Your task to perform on an android device: clear all cookies in the chrome app Image 0: 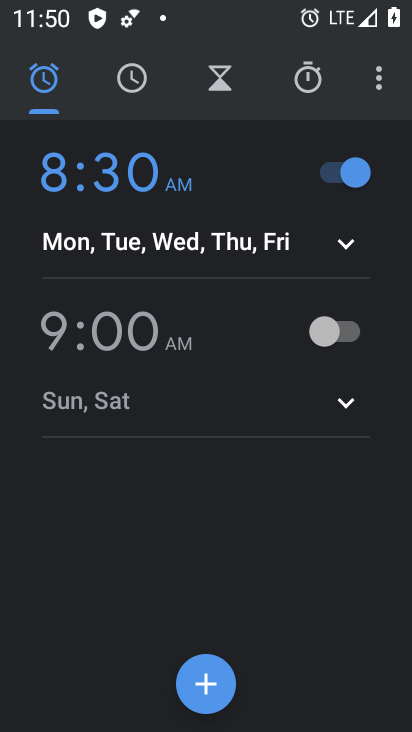
Step 0: press back button
Your task to perform on an android device: clear all cookies in the chrome app Image 1: 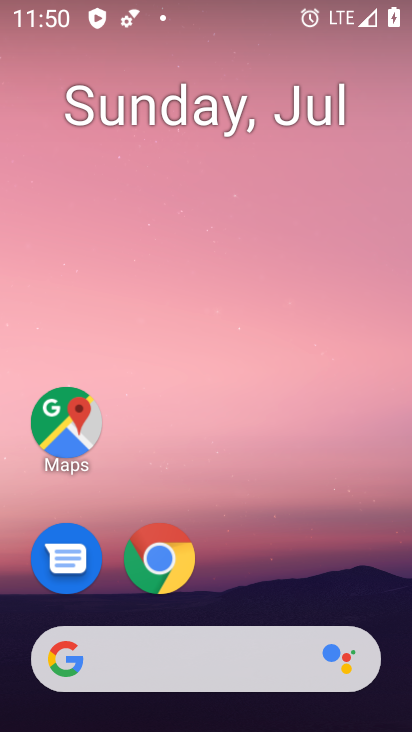
Step 1: click (173, 566)
Your task to perform on an android device: clear all cookies in the chrome app Image 2: 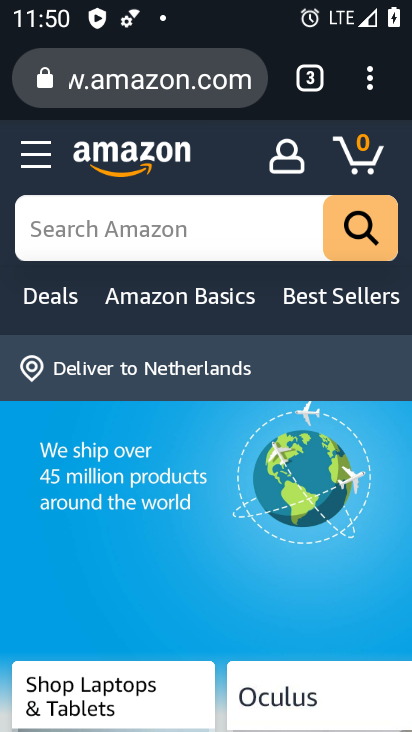
Step 2: drag from (365, 69) to (82, 422)
Your task to perform on an android device: clear all cookies in the chrome app Image 3: 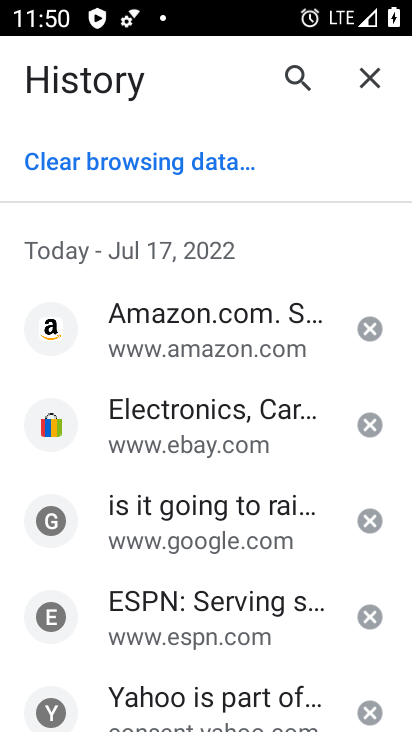
Step 3: click (181, 164)
Your task to perform on an android device: clear all cookies in the chrome app Image 4: 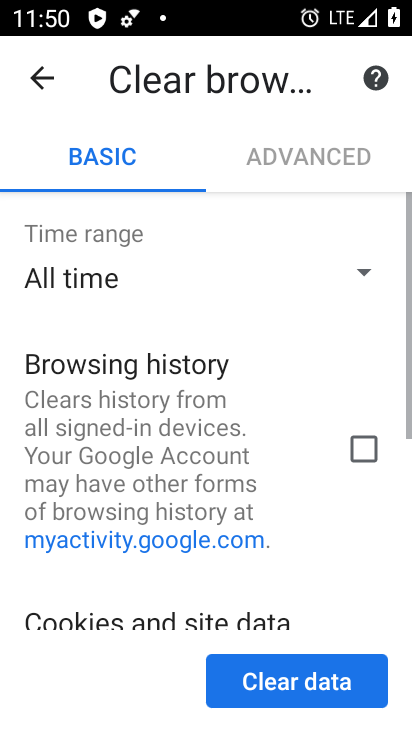
Step 4: drag from (233, 567) to (270, 106)
Your task to perform on an android device: clear all cookies in the chrome app Image 5: 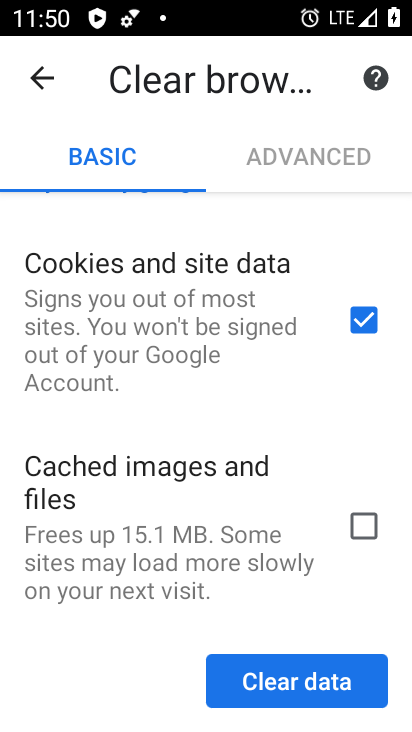
Step 5: click (254, 682)
Your task to perform on an android device: clear all cookies in the chrome app Image 6: 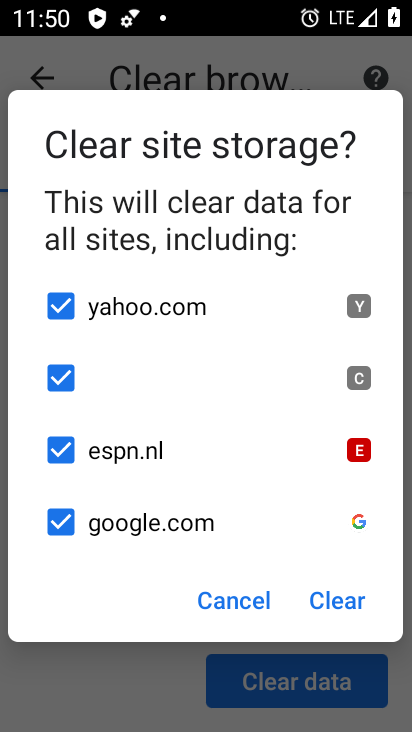
Step 6: click (340, 597)
Your task to perform on an android device: clear all cookies in the chrome app Image 7: 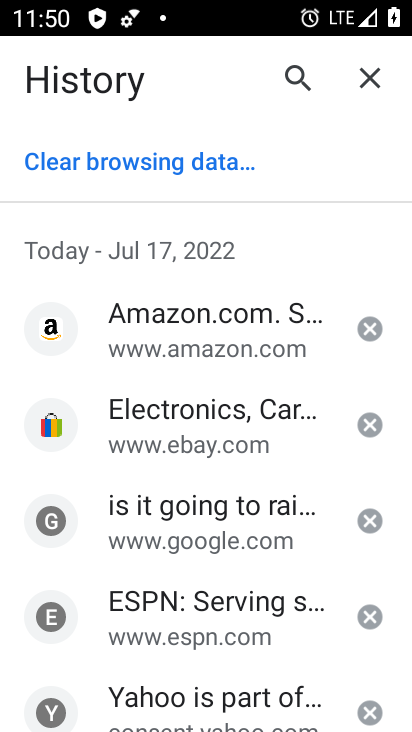
Step 7: click (174, 165)
Your task to perform on an android device: clear all cookies in the chrome app Image 8: 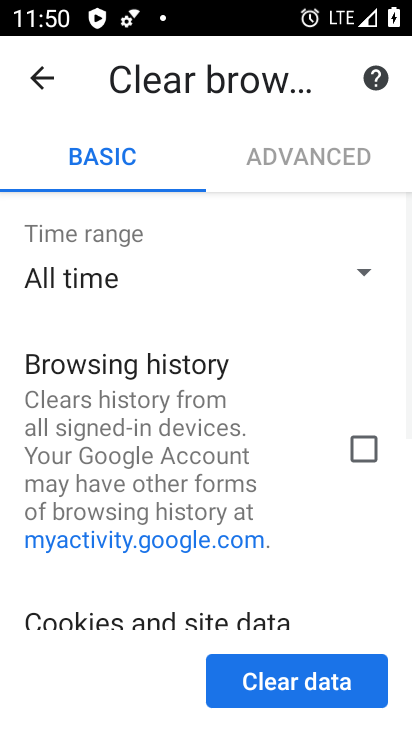
Step 8: task complete